Your task to perform on an android device: Go to Android settings Image 0: 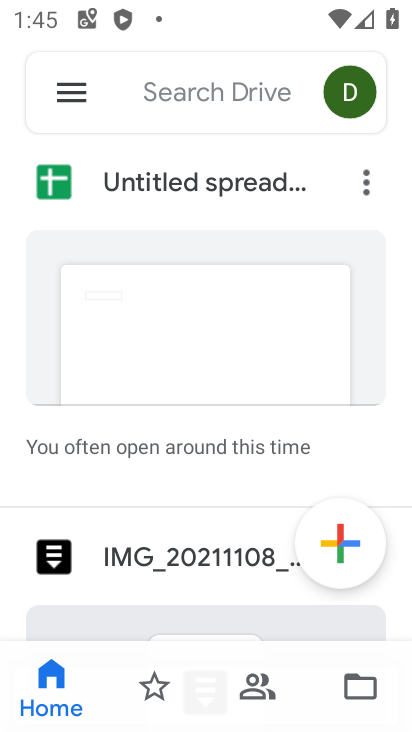
Step 0: press home button
Your task to perform on an android device: Go to Android settings Image 1: 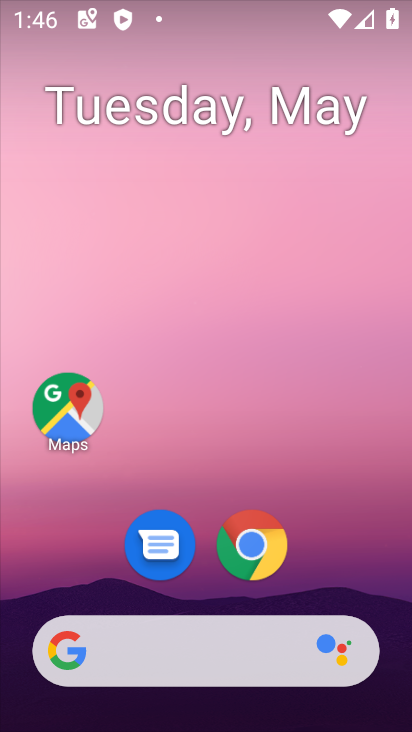
Step 1: drag from (401, 647) to (249, 5)
Your task to perform on an android device: Go to Android settings Image 2: 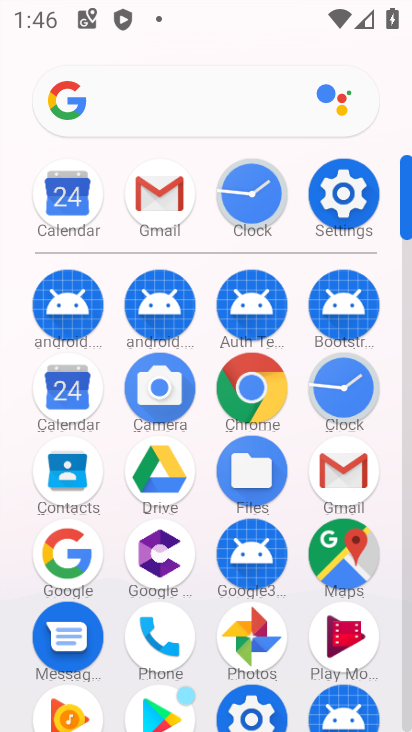
Step 2: click (407, 689)
Your task to perform on an android device: Go to Android settings Image 3: 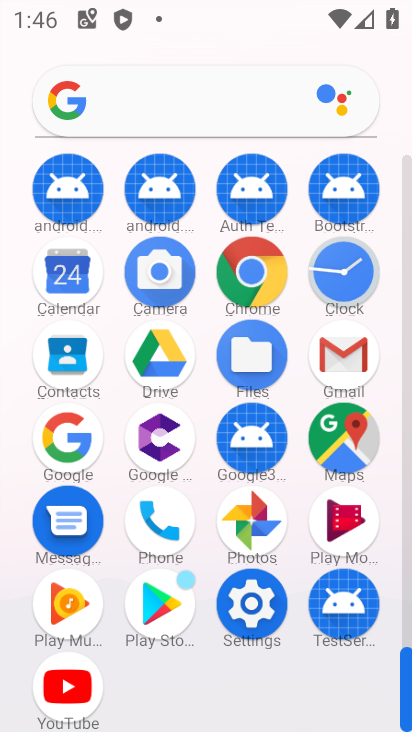
Step 3: click (259, 607)
Your task to perform on an android device: Go to Android settings Image 4: 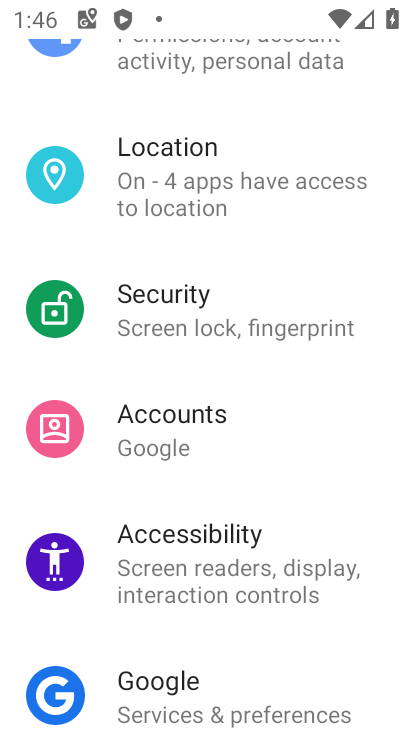
Step 4: drag from (259, 607) to (172, 212)
Your task to perform on an android device: Go to Android settings Image 5: 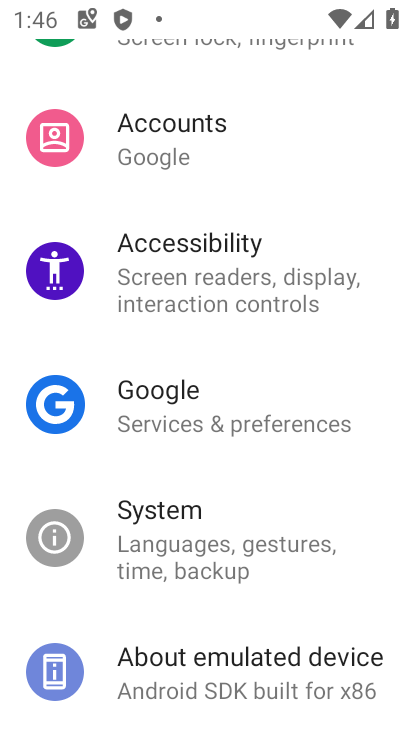
Step 5: drag from (265, 640) to (126, 297)
Your task to perform on an android device: Go to Android settings Image 6: 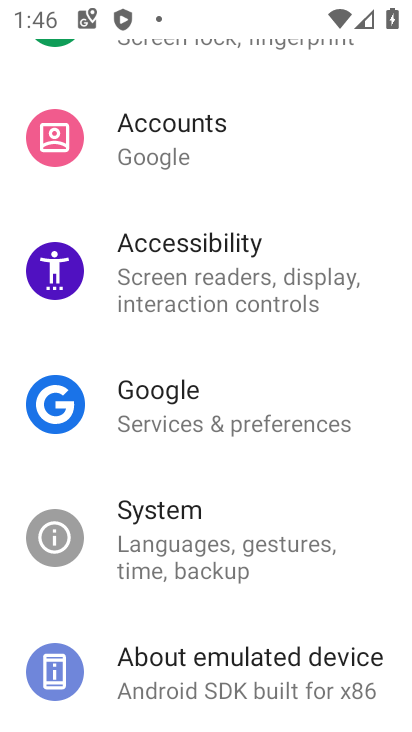
Step 6: click (197, 684)
Your task to perform on an android device: Go to Android settings Image 7: 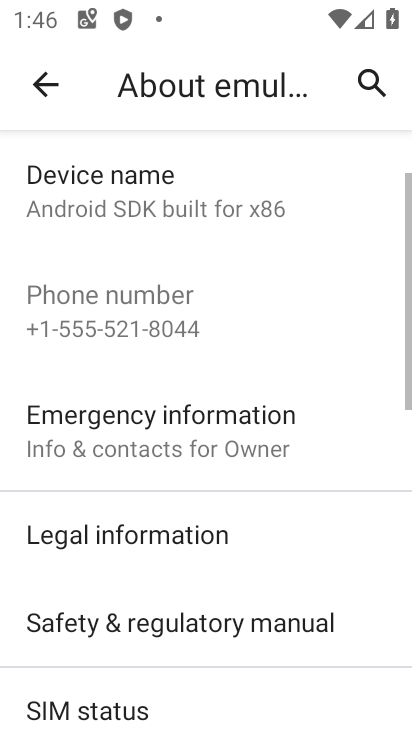
Step 7: task complete